Your task to perform on an android device: Open my contact list Image 0: 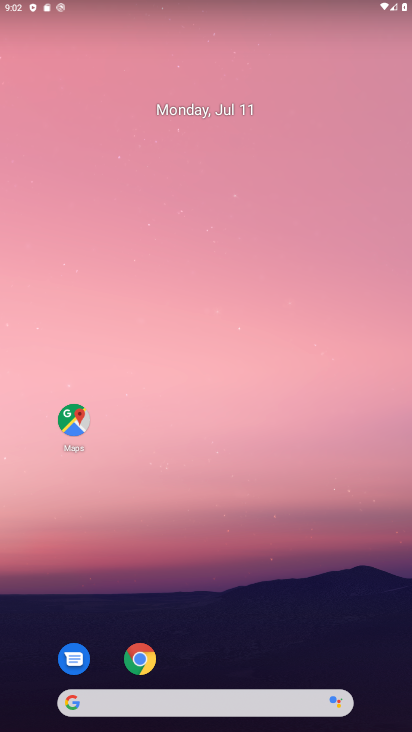
Step 0: drag from (348, 650) to (369, 107)
Your task to perform on an android device: Open my contact list Image 1: 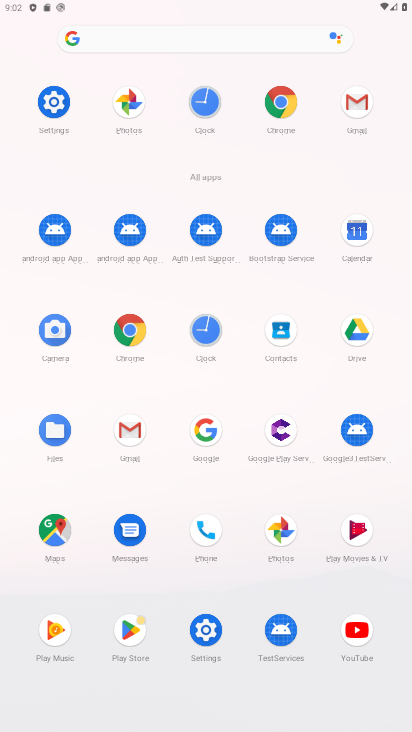
Step 1: click (279, 332)
Your task to perform on an android device: Open my contact list Image 2: 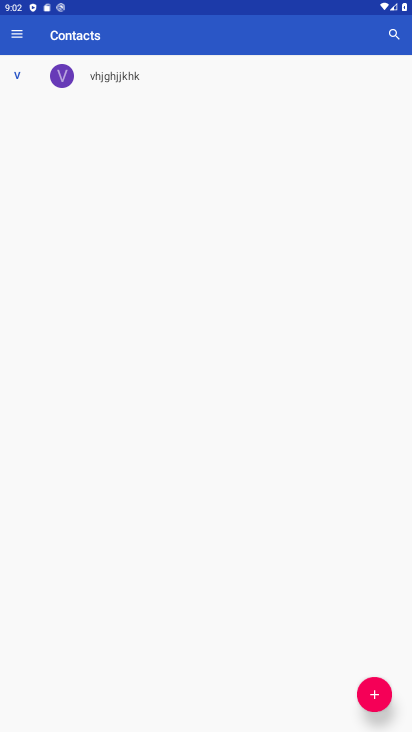
Step 2: task complete